Your task to perform on an android device: add a label to a message in the gmail app Image 0: 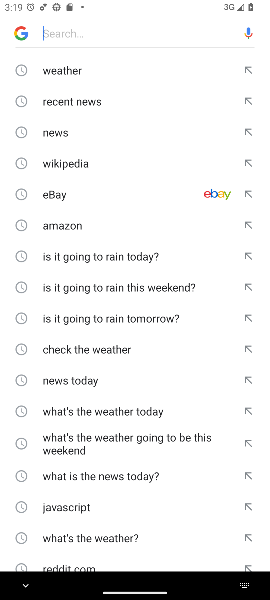
Step 0: press home button
Your task to perform on an android device: add a label to a message in the gmail app Image 1: 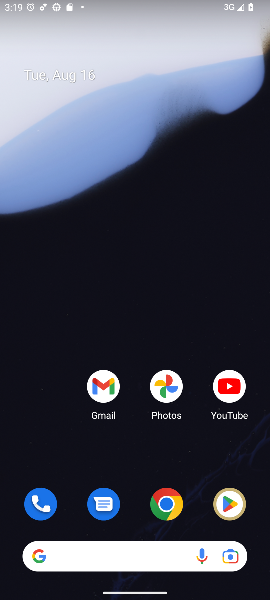
Step 1: press home button
Your task to perform on an android device: add a label to a message in the gmail app Image 2: 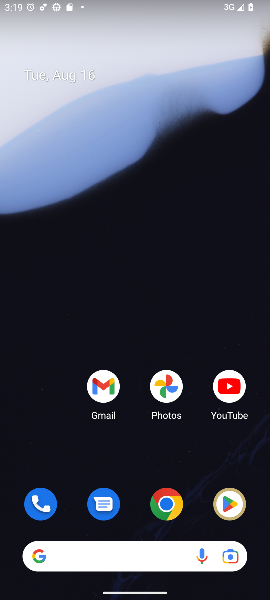
Step 2: click (96, 393)
Your task to perform on an android device: add a label to a message in the gmail app Image 3: 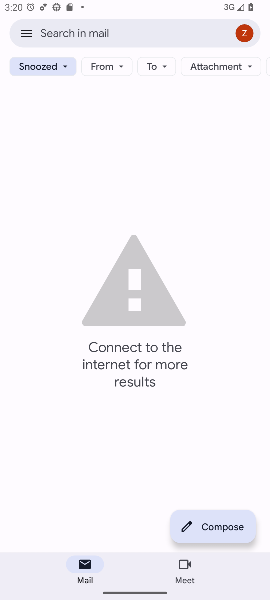
Step 3: click (24, 29)
Your task to perform on an android device: add a label to a message in the gmail app Image 4: 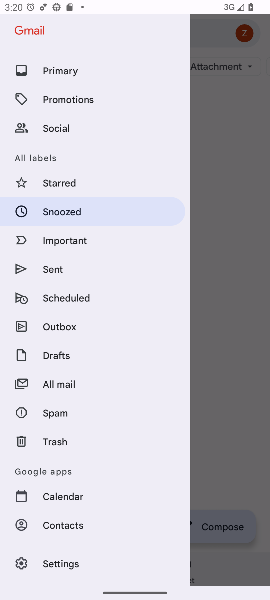
Step 4: click (48, 387)
Your task to perform on an android device: add a label to a message in the gmail app Image 5: 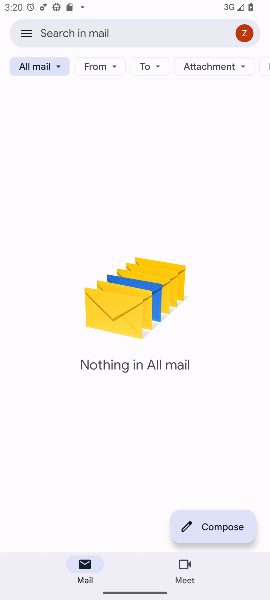
Step 5: task complete